Your task to perform on an android device: Open Wikipedia Image 0: 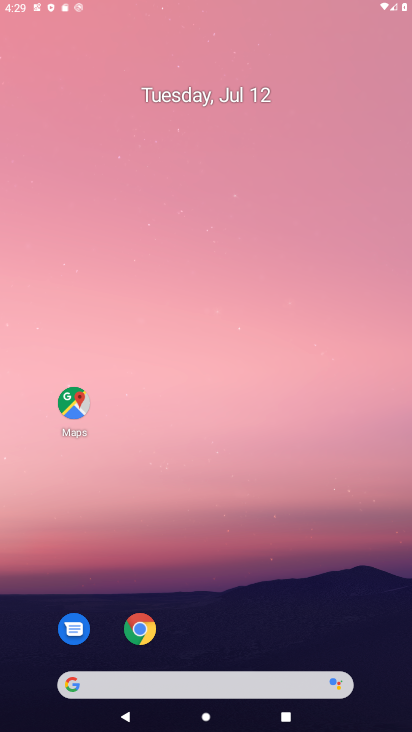
Step 0: press home button
Your task to perform on an android device: Open Wikipedia Image 1: 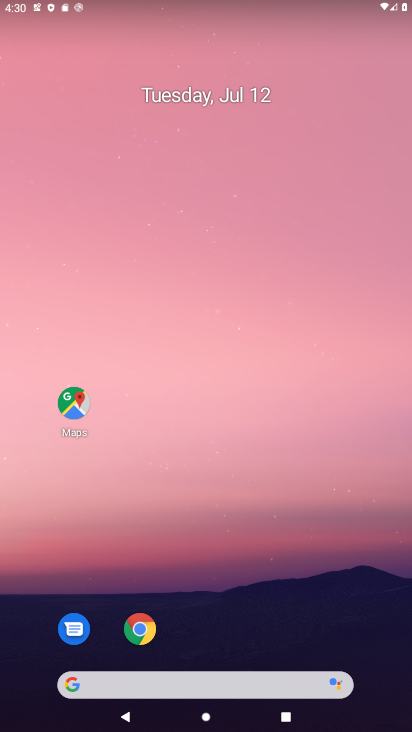
Step 1: click (71, 685)
Your task to perform on an android device: Open Wikipedia Image 2: 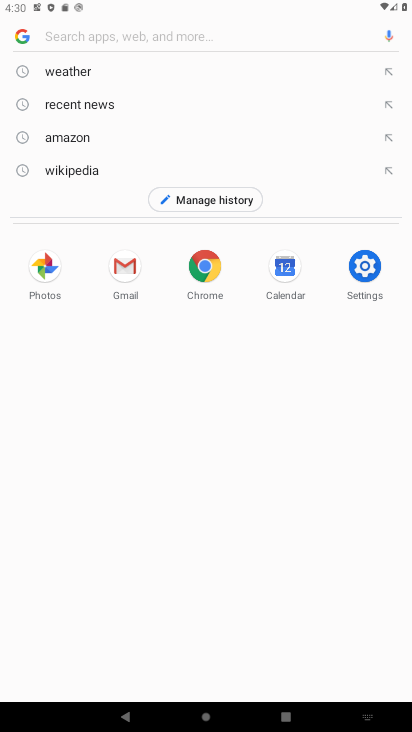
Step 2: click (64, 171)
Your task to perform on an android device: Open Wikipedia Image 3: 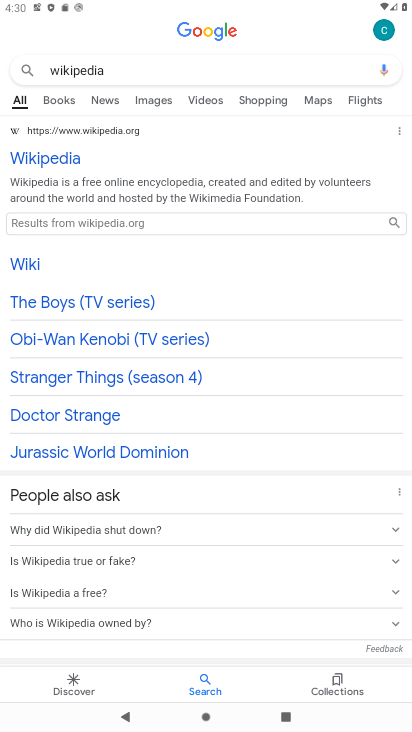
Step 3: click (34, 164)
Your task to perform on an android device: Open Wikipedia Image 4: 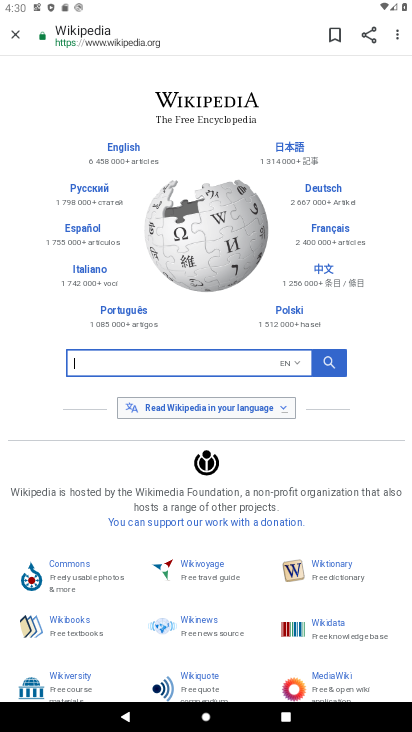
Step 4: task complete